Your task to perform on an android device: turn on location history Image 0: 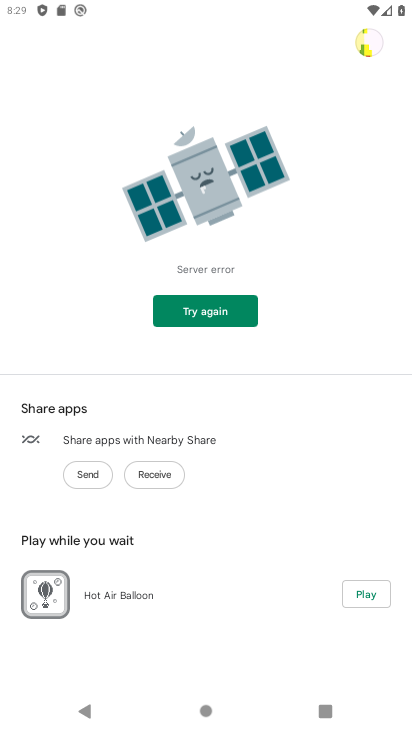
Step 0: press back button
Your task to perform on an android device: turn on location history Image 1: 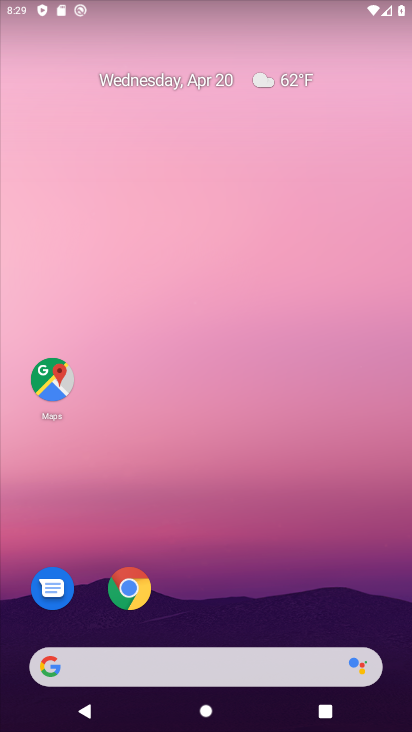
Step 1: drag from (272, 581) to (188, 19)
Your task to perform on an android device: turn on location history Image 2: 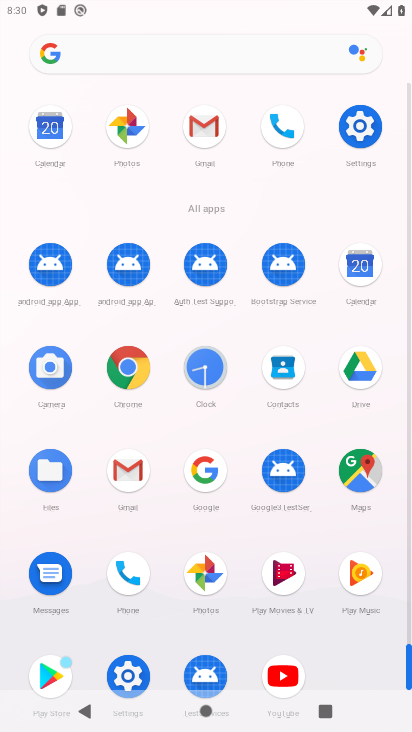
Step 2: drag from (15, 550) to (22, 308)
Your task to perform on an android device: turn on location history Image 3: 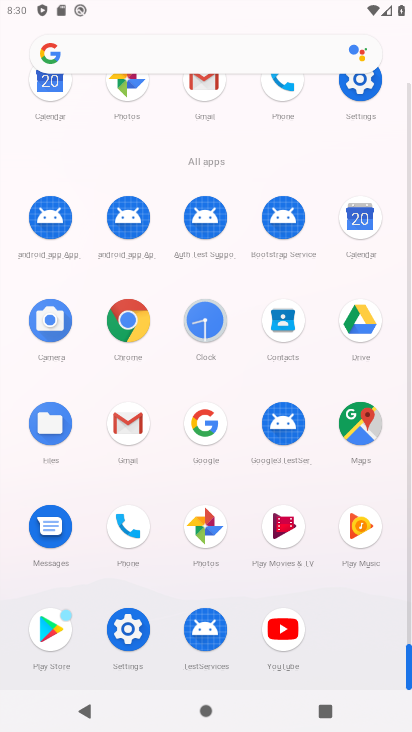
Step 3: click (127, 617)
Your task to perform on an android device: turn on location history Image 4: 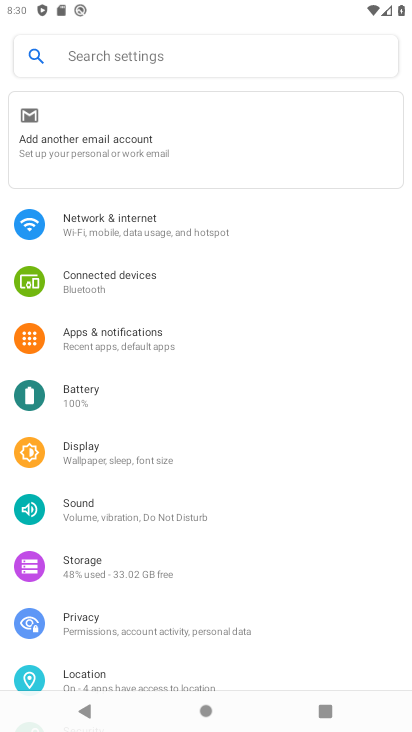
Step 4: drag from (351, 576) to (354, 263)
Your task to perform on an android device: turn on location history Image 5: 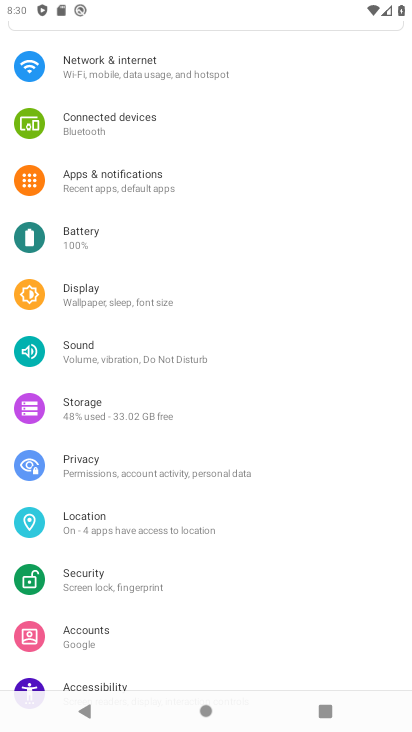
Step 5: click (88, 522)
Your task to perform on an android device: turn on location history Image 6: 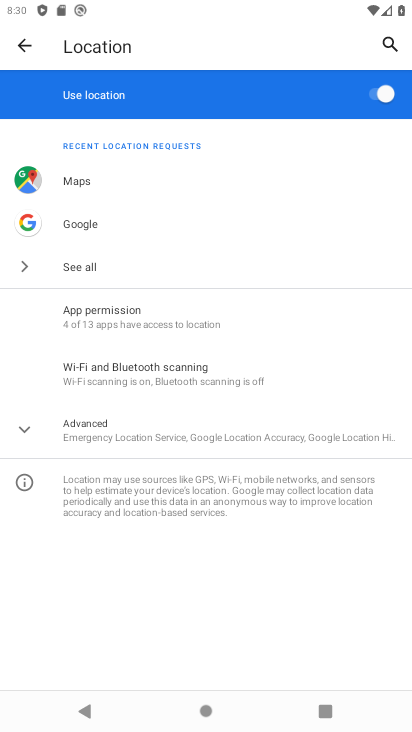
Step 6: click (162, 439)
Your task to perform on an android device: turn on location history Image 7: 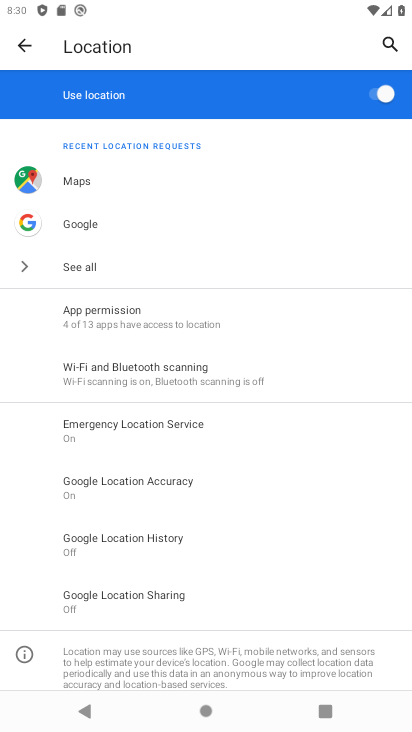
Step 7: click (139, 536)
Your task to perform on an android device: turn on location history Image 8: 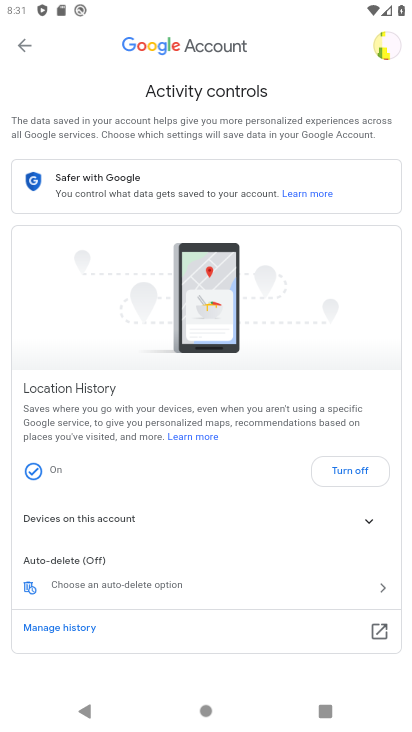
Step 8: task complete